Your task to perform on an android device: Go to Reddit.com Image 0: 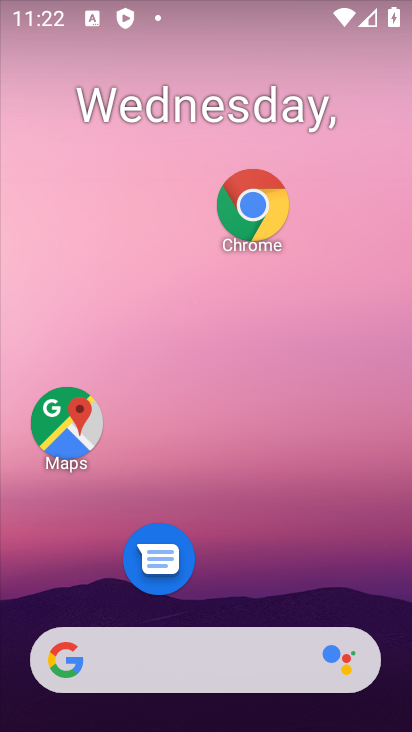
Step 0: drag from (299, 612) to (338, 115)
Your task to perform on an android device: Go to Reddit.com Image 1: 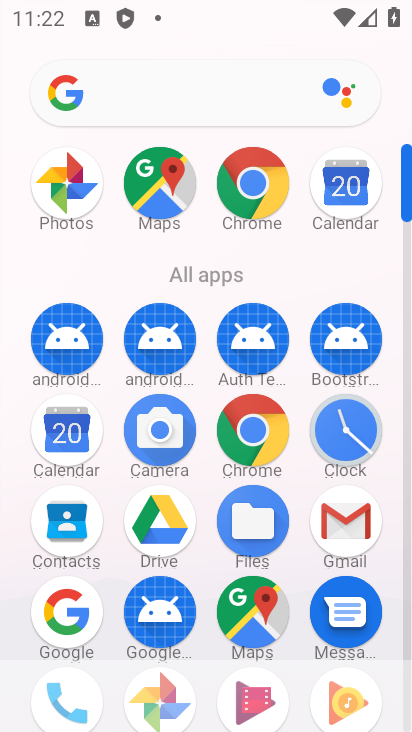
Step 1: click (265, 433)
Your task to perform on an android device: Go to Reddit.com Image 2: 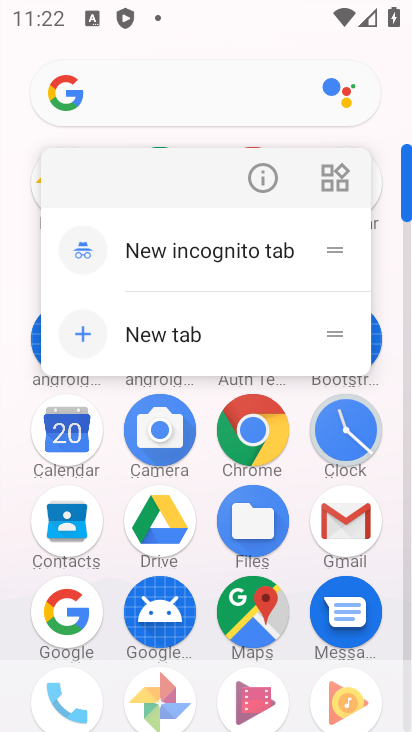
Step 2: click (265, 433)
Your task to perform on an android device: Go to Reddit.com Image 3: 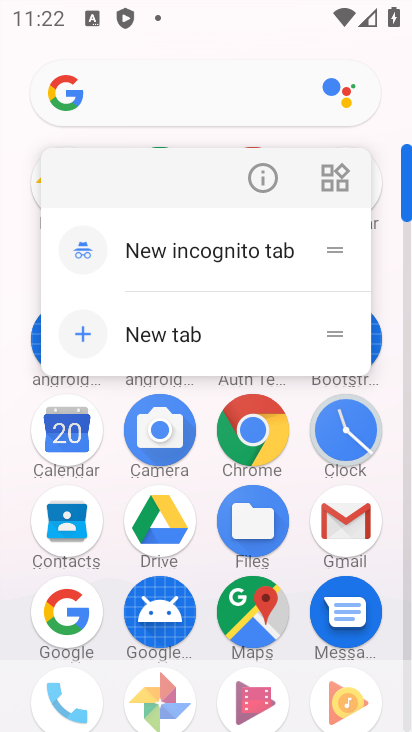
Step 3: click (265, 433)
Your task to perform on an android device: Go to Reddit.com Image 4: 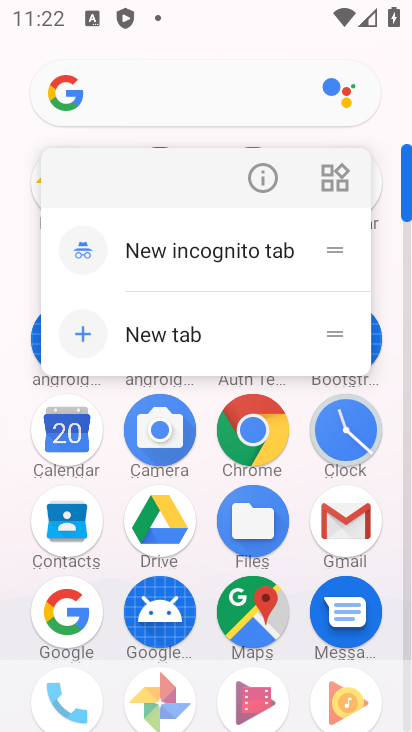
Step 4: click (265, 433)
Your task to perform on an android device: Go to Reddit.com Image 5: 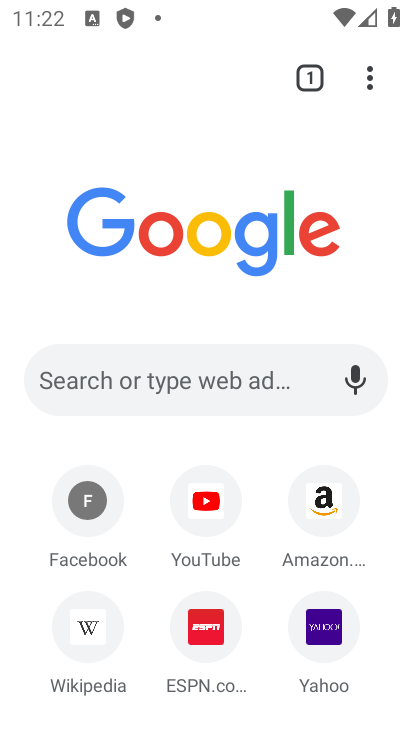
Step 5: click (269, 385)
Your task to perform on an android device: Go to Reddit.com Image 6: 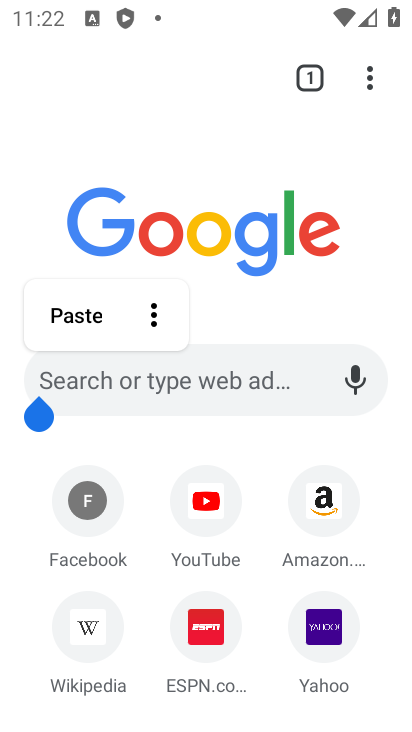
Step 6: click (269, 385)
Your task to perform on an android device: Go to Reddit.com Image 7: 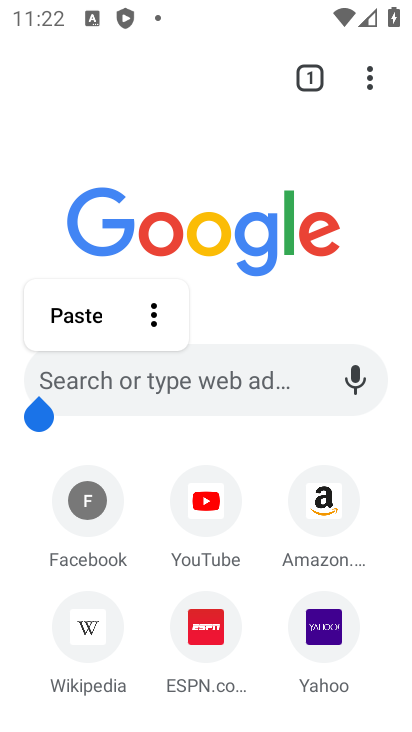
Step 7: click (269, 385)
Your task to perform on an android device: Go to Reddit.com Image 8: 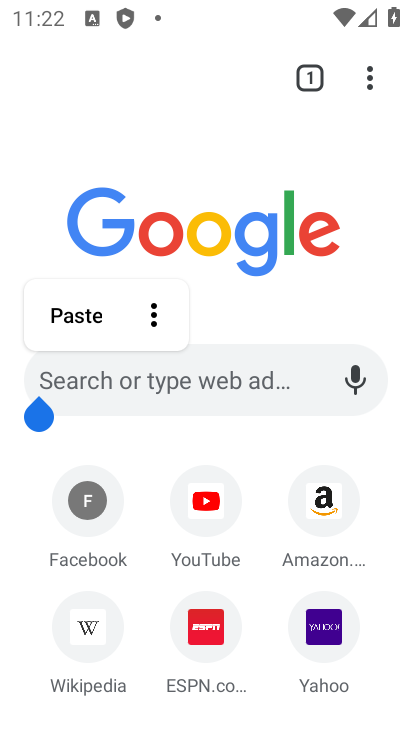
Step 8: click (127, 395)
Your task to perform on an android device: Go to Reddit.com Image 9: 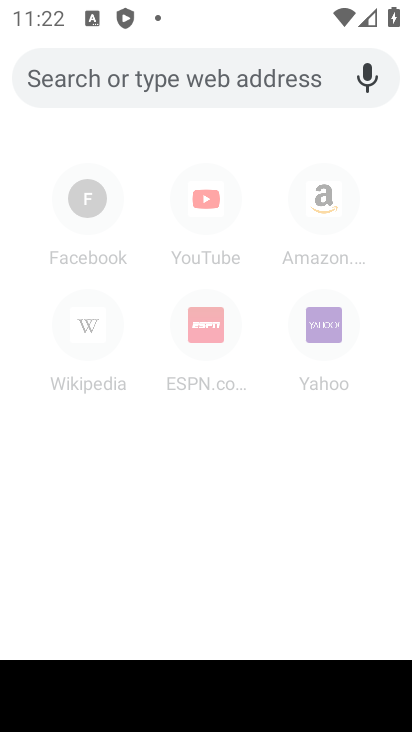
Step 9: type "reddit"
Your task to perform on an android device: Go to Reddit.com Image 10: 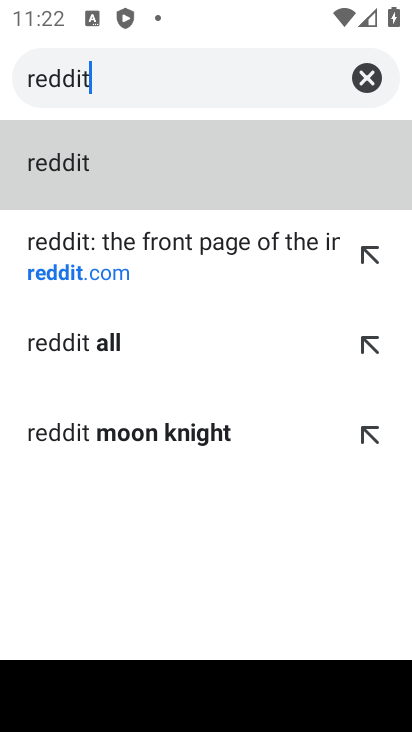
Step 10: click (317, 254)
Your task to perform on an android device: Go to Reddit.com Image 11: 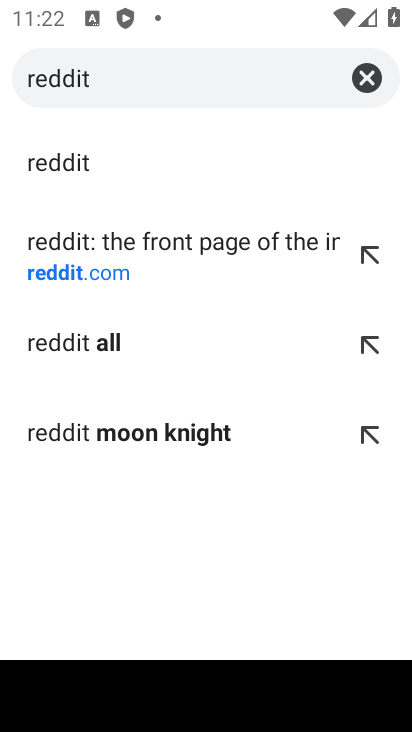
Step 11: click (220, 264)
Your task to perform on an android device: Go to Reddit.com Image 12: 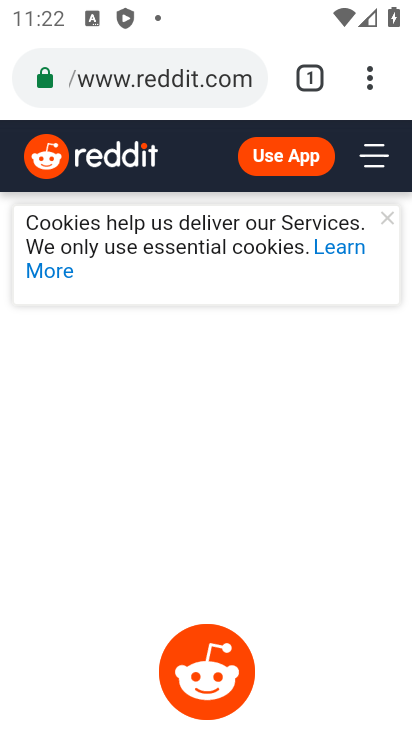
Step 12: task complete